Your task to perform on an android device: clear all cookies in the chrome app Image 0: 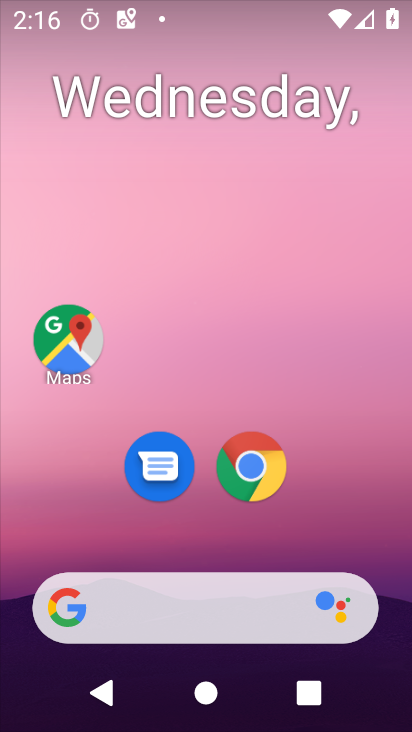
Step 0: click (252, 480)
Your task to perform on an android device: clear all cookies in the chrome app Image 1: 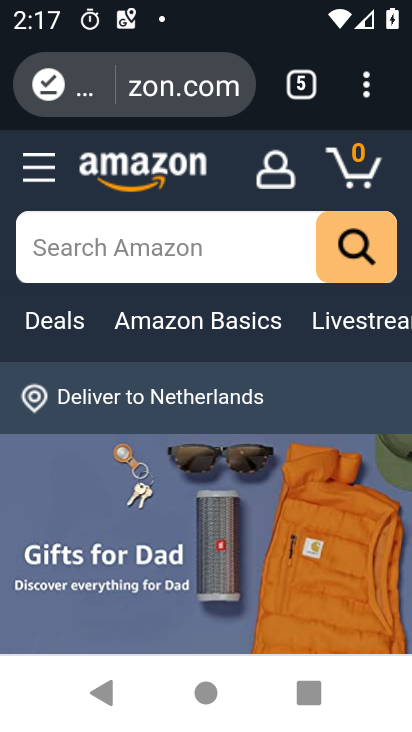
Step 1: click (362, 100)
Your task to perform on an android device: clear all cookies in the chrome app Image 2: 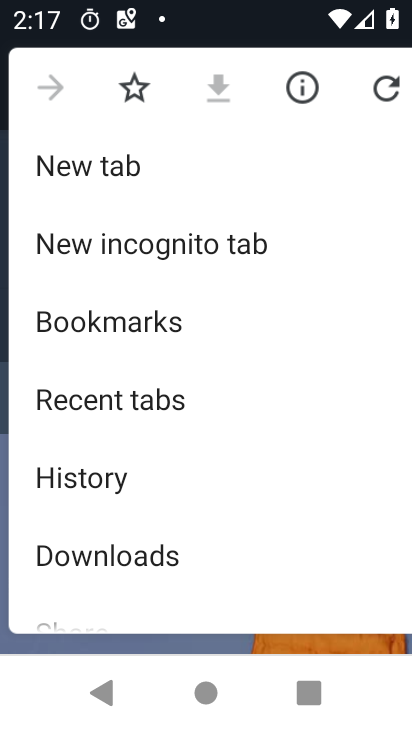
Step 2: drag from (328, 530) to (323, 161)
Your task to perform on an android device: clear all cookies in the chrome app Image 3: 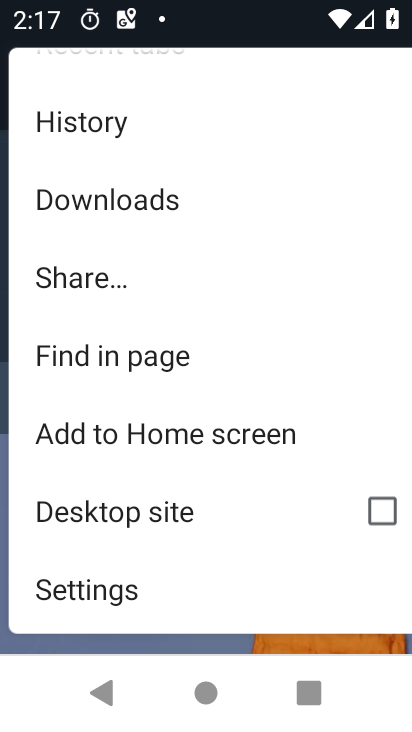
Step 3: click (209, 592)
Your task to perform on an android device: clear all cookies in the chrome app Image 4: 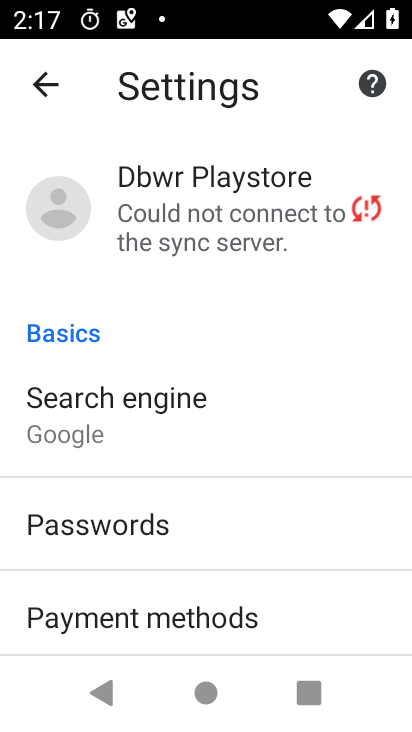
Step 4: drag from (225, 544) to (194, 193)
Your task to perform on an android device: clear all cookies in the chrome app Image 5: 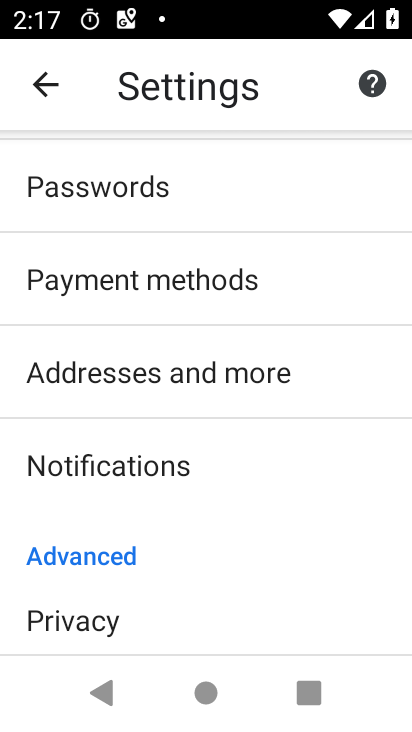
Step 5: drag from (180, 562) to (229, 199)
Your task to perform on an android device: clear all cookies in the chrome app Image 6: 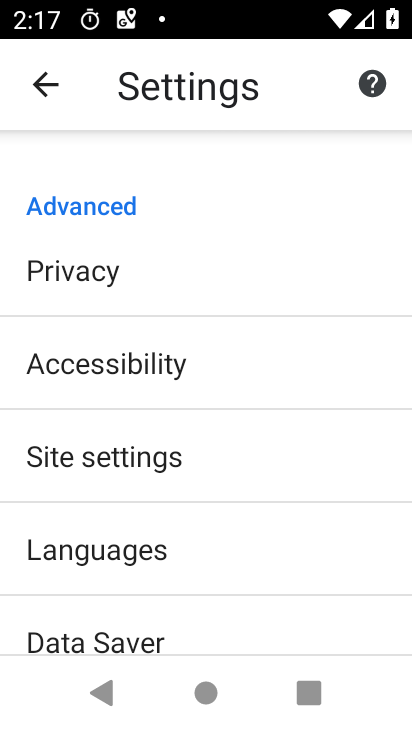
Step 6: click (223, 456)
Your task to perform on an android device: clear all cookies in the chrome app Image 7: 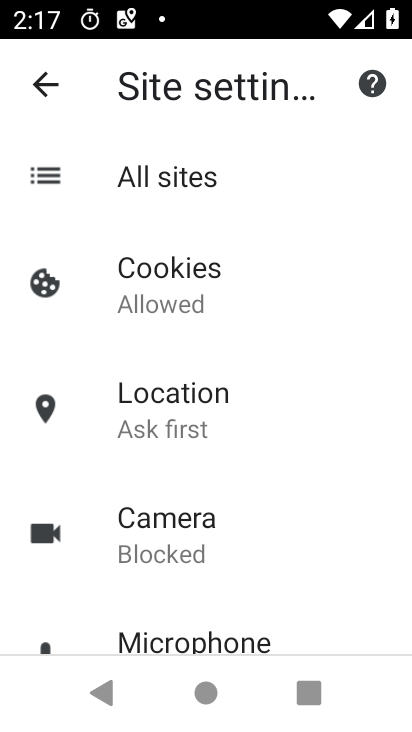
Step 7: click (183, 305)
Your task to perform on an android device: clear all cookies in the chrome app Image 8: 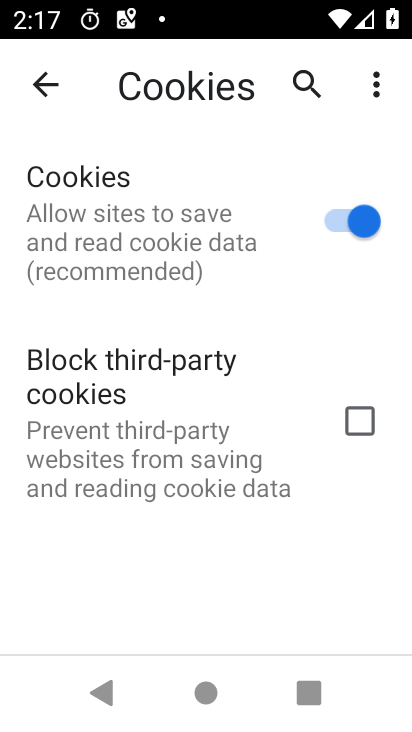
Step 8: task complete